Your task to perform on an android device: turn off location Image 0: 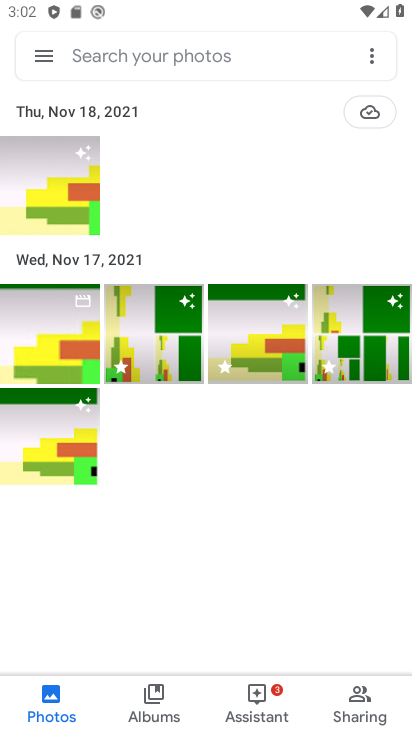
Step 0: drag from (363, 31) to (364, 700)
Your task to perform on an android device: turn off location Image 1: 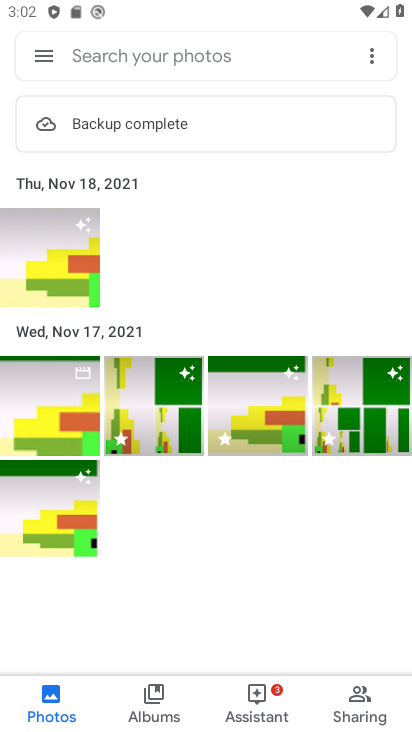
Step 1: drag from (367, 6) to (344, 715)
Your task to perform on an android device: turn off location Image 2: 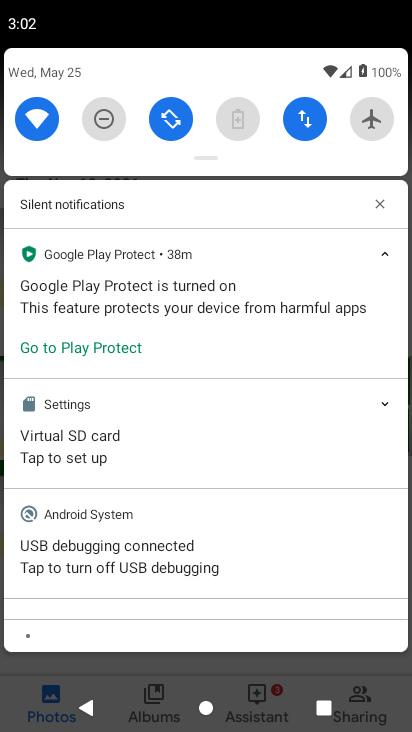
Step 2: drag from (274, 173) to (304, 628)
Your task to perform on an android device: turn off location Image 3: 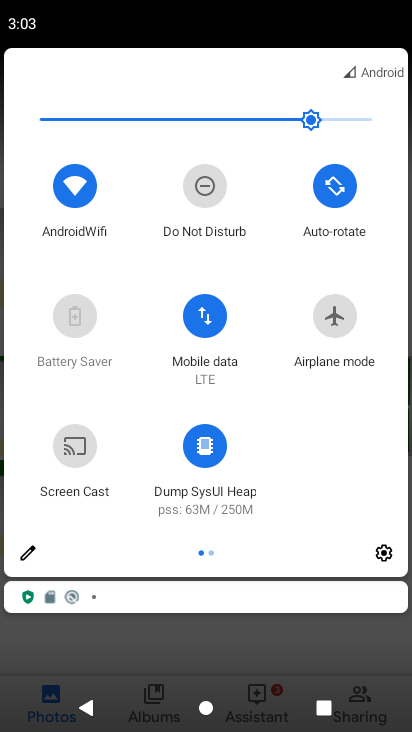
Step 3: click (21, 547)
Your task to perform on an android device: turn off location Image 4: 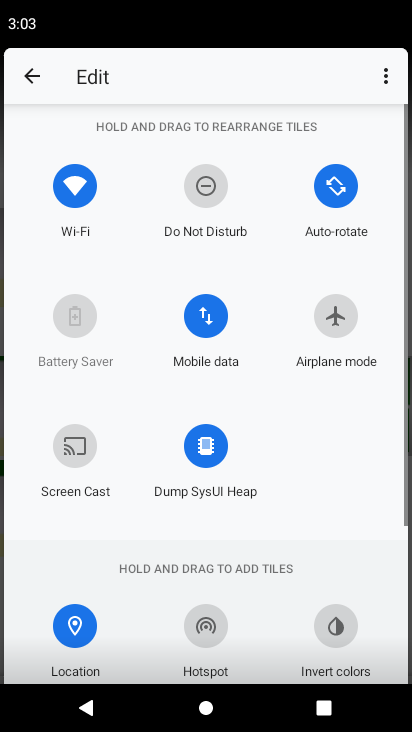
Step 4: drag from (83, 631) to (290, 444)
Your task to perform on an android device: turn off location Image 5: 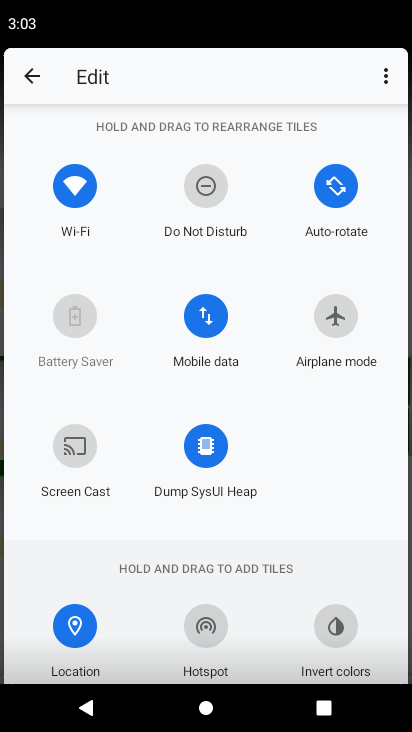
Step 5: drag from (408, 472) to (236, 409)
Your task to perform on an android device: turn off location Image 6: 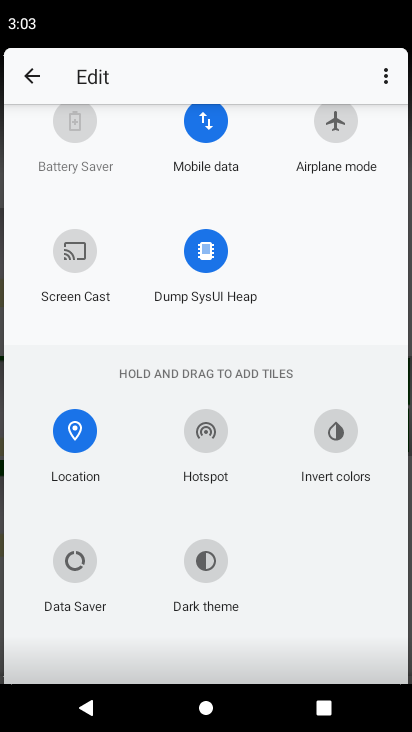
Step 6: drag from (77, 425) to (229, 285)
Your task to perform on an android device: turn off location Image 7: 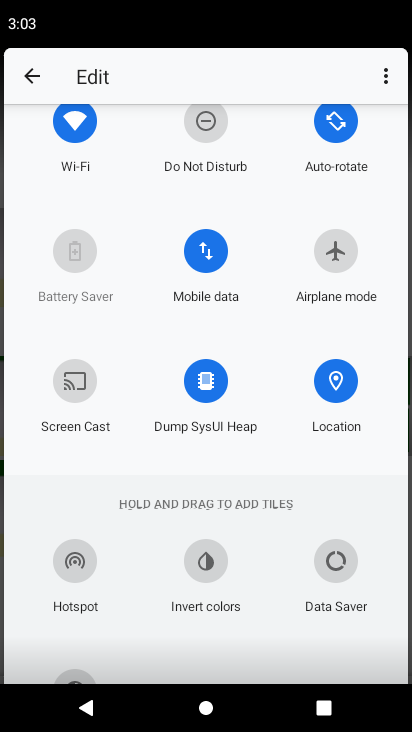
Step 7: click (40, 70)
Your task to perform on an android device: turn off location Image 8: 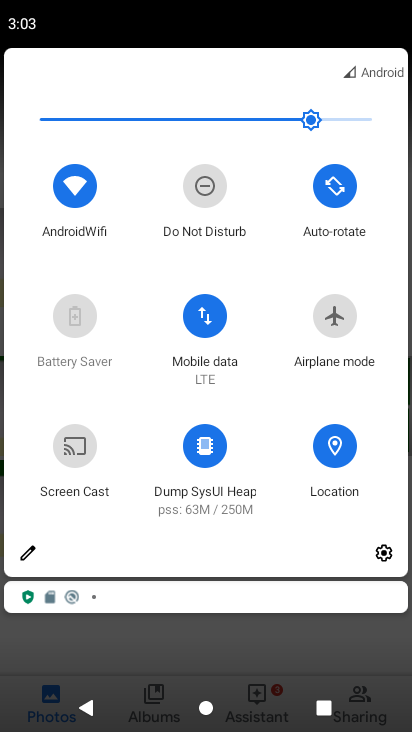
Step 8: click (347, 443)
Your task to perform on an android device: turn off location Image 9: 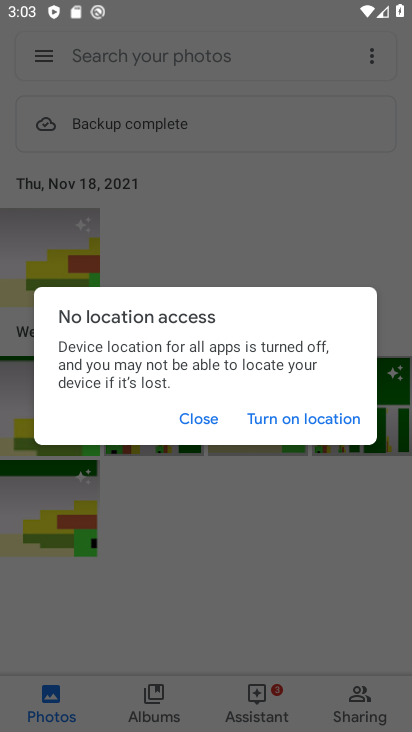
Step 9: task complete